Your task to perform on an android device: empty trash in the gmail app Image 0: 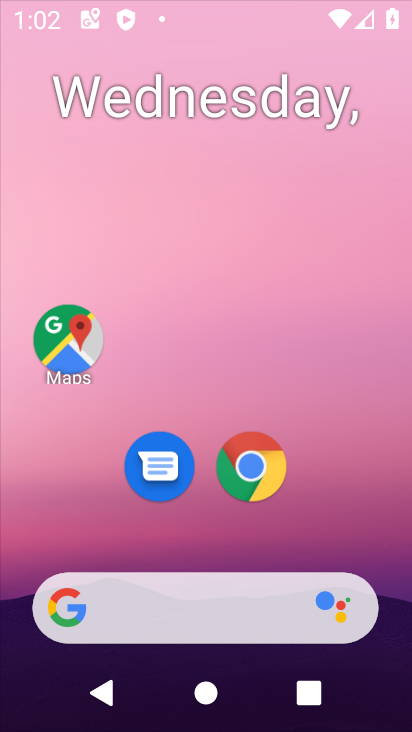
Step 0: click (258, 462)
Your task to perform on an android device: empty trash in the gmail app Image 1: 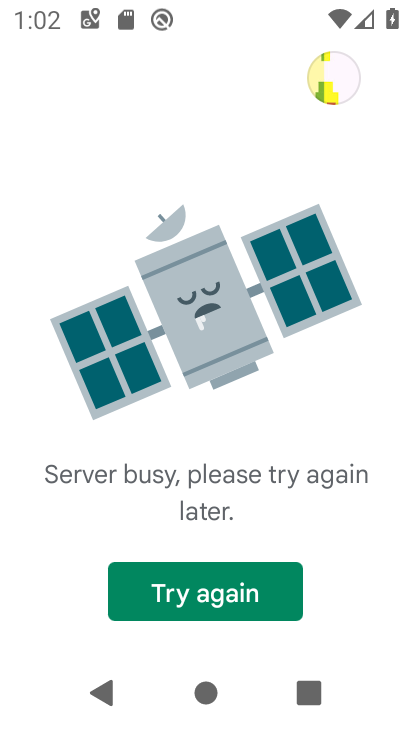
Step 1: press home button
Your task to perform on an android device: empty trash in the gmail app Image 2: 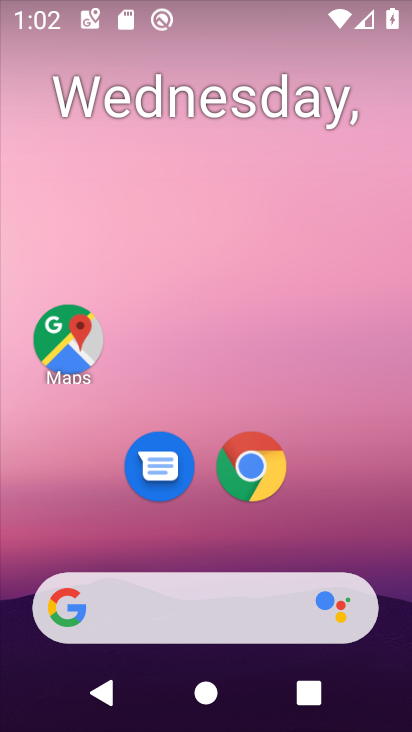
Step 2: drag from (187, 538) to (161, 11)
Your task to perform on an android device: empty trash in the gmail app Image 3: 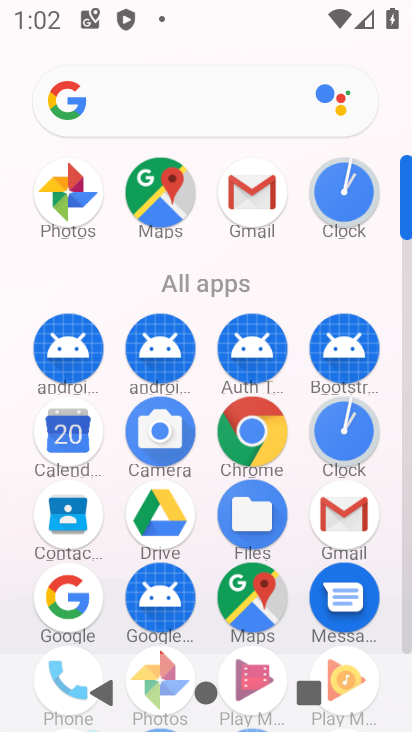
Step 3: click (274, 221)
Your task to perform on an android device: empty trash in the gmail app Image 4: 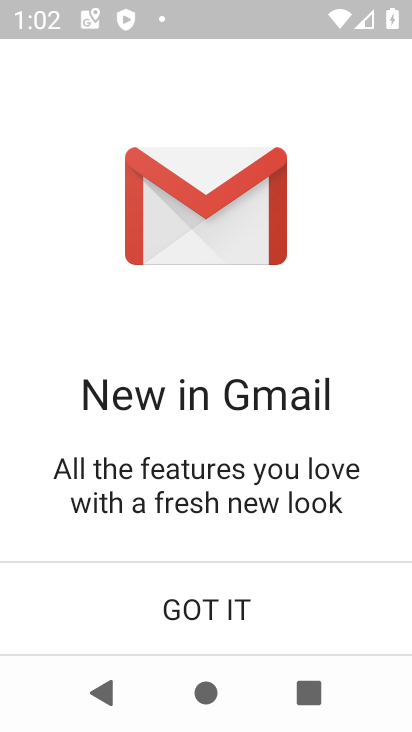
Step 4: click (199, 614)
Your task to perform on an android device: empty trash in the gmail app Image 5: 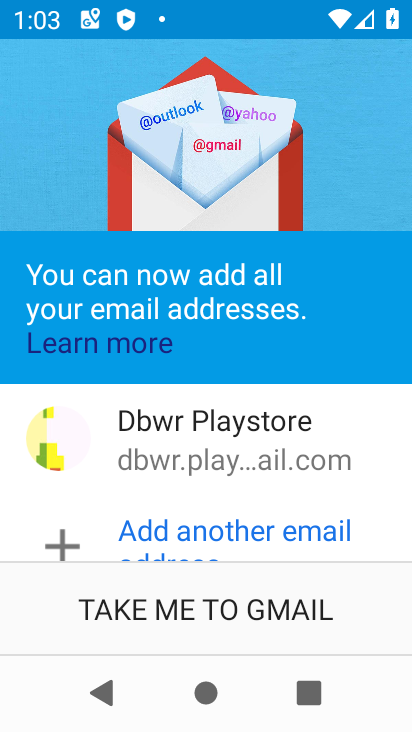
Step 5: click (143, 597)
Your task to perform on an android device: empty trash in the gmail app Image 6: 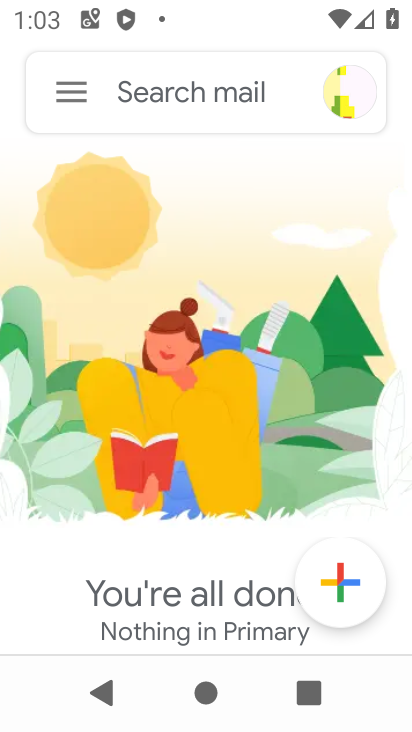
Step 6: click (59, 105)
Your task to perform on an android device: empty trash in the gmail app Image 7: 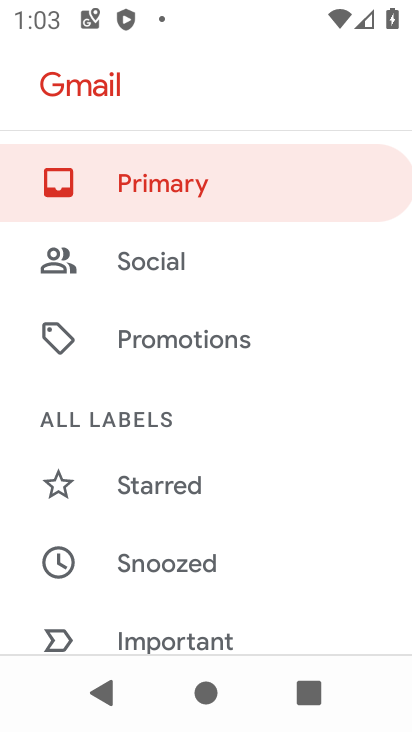
Step 7: drag from (153, 591) to (164, 163)
Your task to perform on an android device: empty trash in the gmail app Image 8: 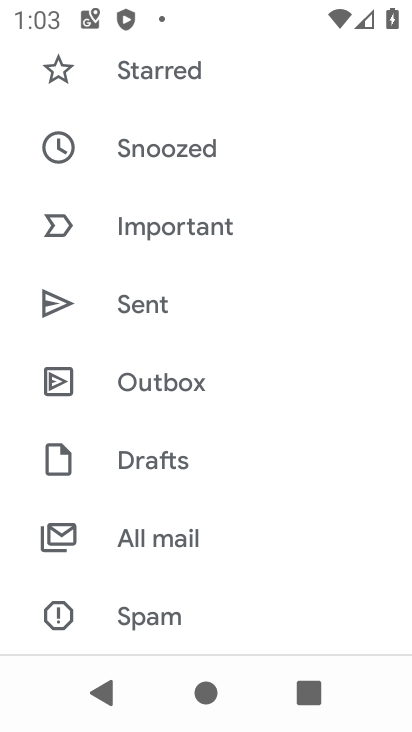
Step 8: drag from (174, 593) to (162, 174)
Your task to perform on an android device: empty trash in the gmail app Image 9: 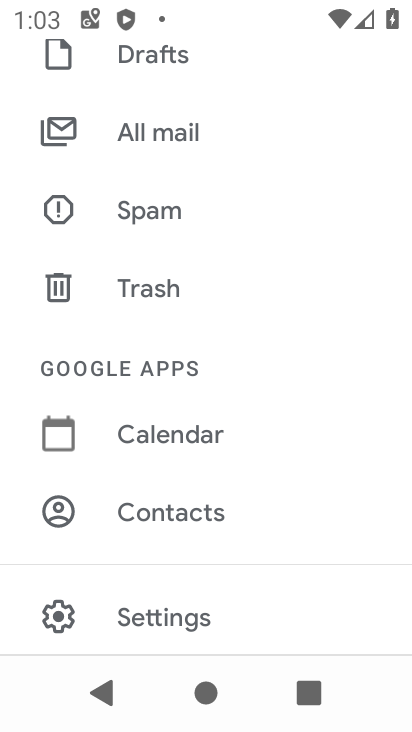
Step 9: click (160, 270)
Your task to perform on an android device: empty trash in the gmail app Image 10: 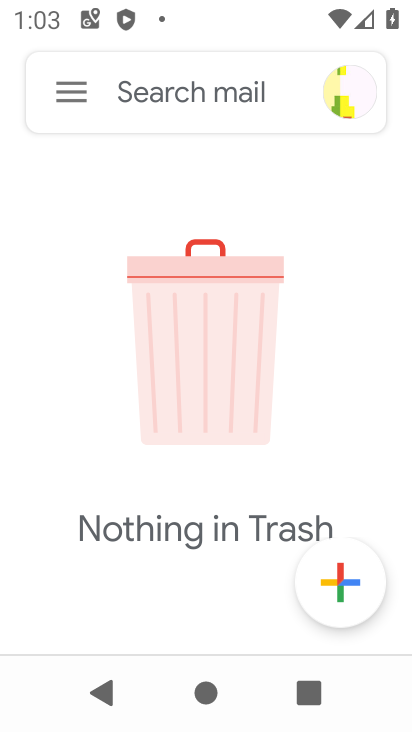
Step 10: task complete